Your task to perform on an android device: Go to Android settings Image 0: 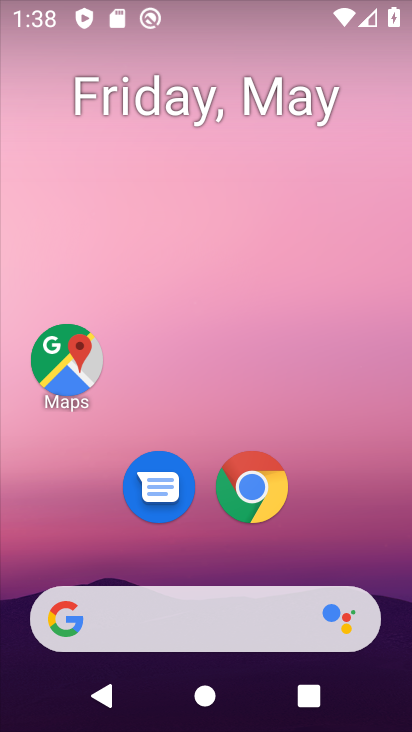
Step 0: drag from (387, 572) to (372, 0)
Your task to perform on an android device: Go to Android settings Image 1: 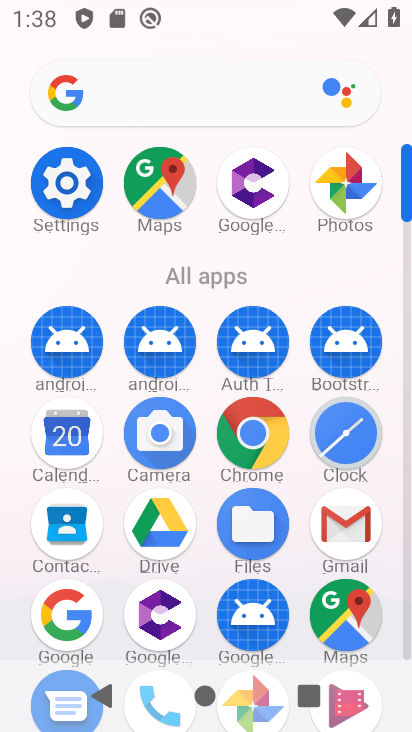
Step 1: click (66, 180)
Your task to perform on an android device: Go to Android settings Image 2: 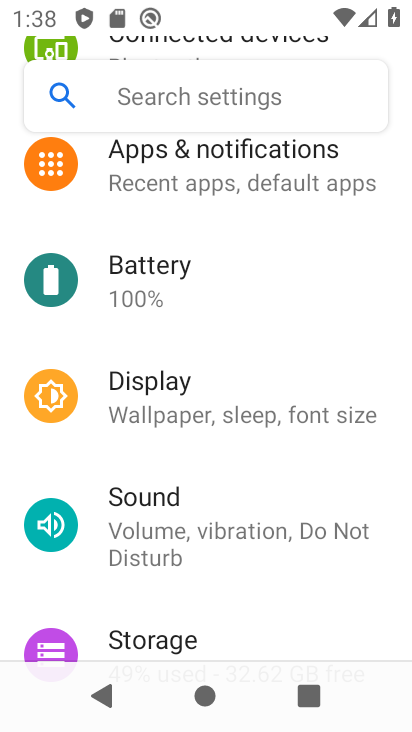
Step 2: task complete